Your task to perform on an android device: toggle priority inbox in the gmail app Image 0: 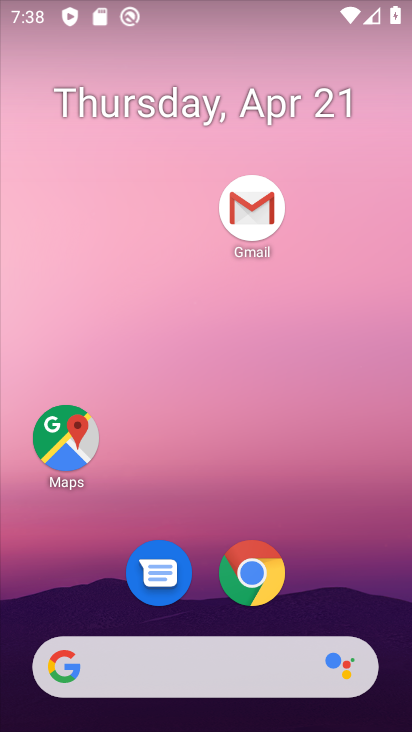
Step 0: click (252, 218)
Your task to perform on an android device: toggle priority inbox in the gmail app Image 1: 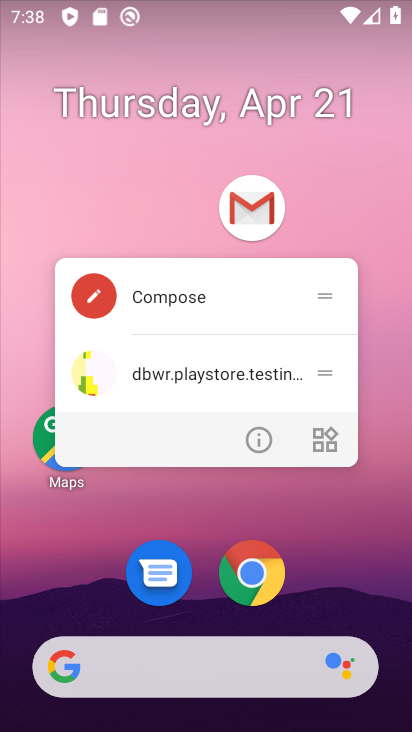
Step 1: click (252, 218)
Your task to perform on an android device: toggle priority inbox in the gmail app Image 2: 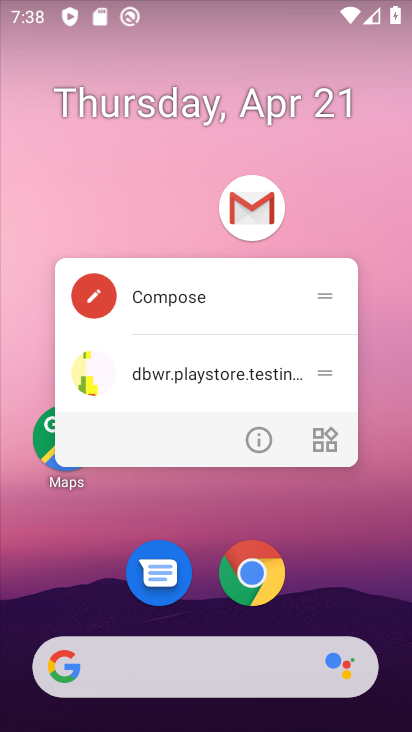
Step 2: click (252, 218)
Your task to perform on an android device: toggle priority inbox in the gmail app Image 3: 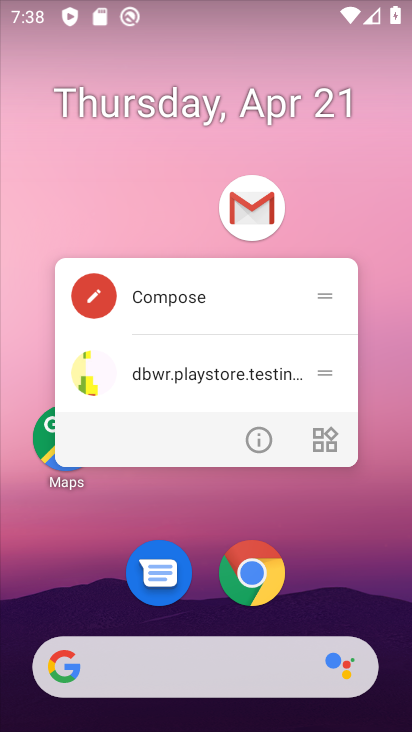
Step 3: click (252, 218)
Your task to perform on an android device: toggle priority inbox in the gmail app Image 4: 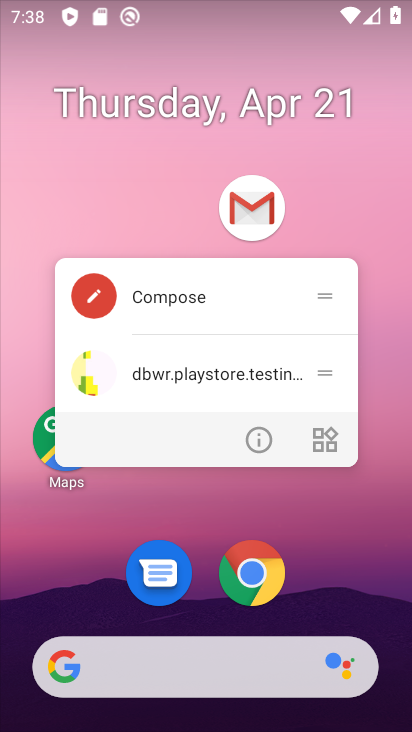
Step 4: click (252, 218)
Your task to perform on an android device: toggle priority inbox in the gmail app Image 5: 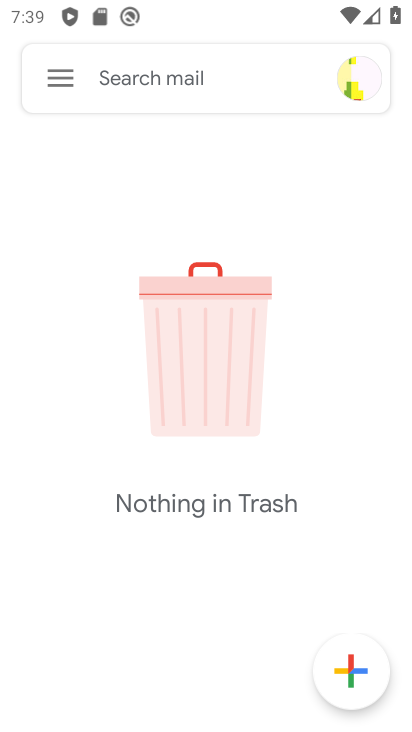
Step 5: click (55, 69)
Your task to perform on an android device: toggle priority inbox in the gmail app Image 6: 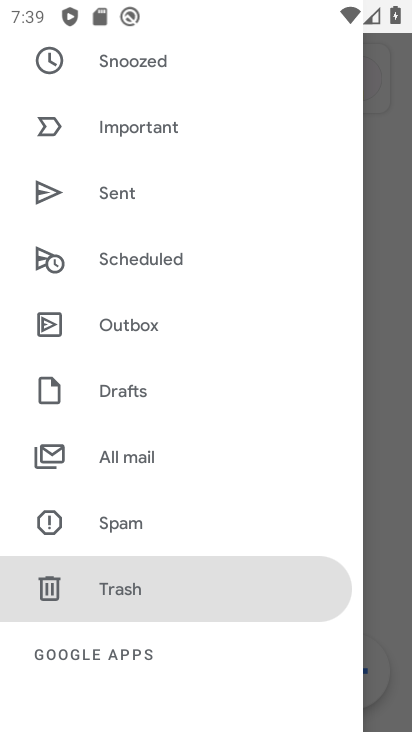
Step 6: drag from (237, 402) to (218, 98)
Your task to perform on an android device: toggle priority inbox in the gmail app Image 7: 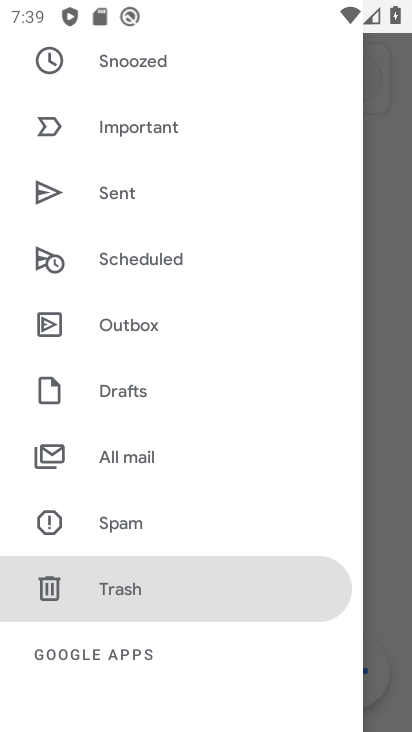
Step 7: drag from (189, 624) to (185, 222)
Your task to perform on an android device: toggle priority inbox in the gmail app Image 8: 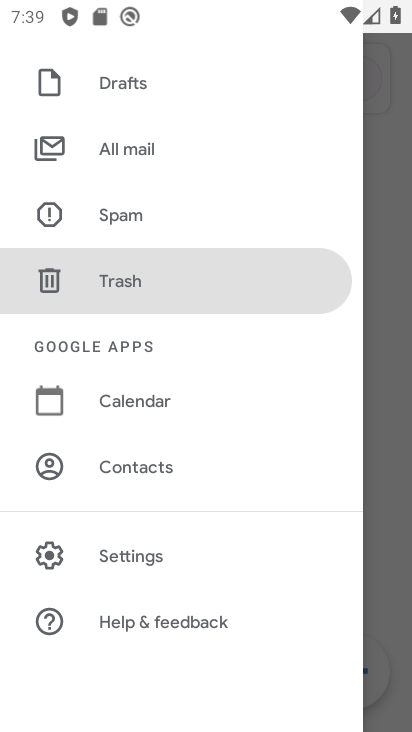
Step 8: click (111, 558)
Your task to perform on an android device: toggle priority inbox in the gmail app Image 9: 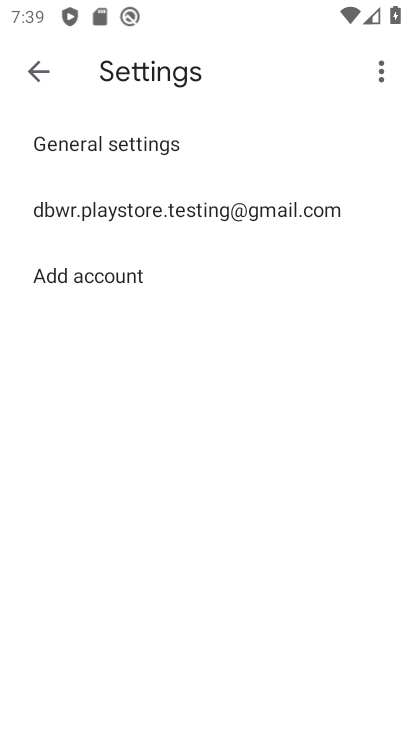
Step 9: click (226, 212)
Your task to perform on an android device: toggle priority inbox in the gmail app Image 10: 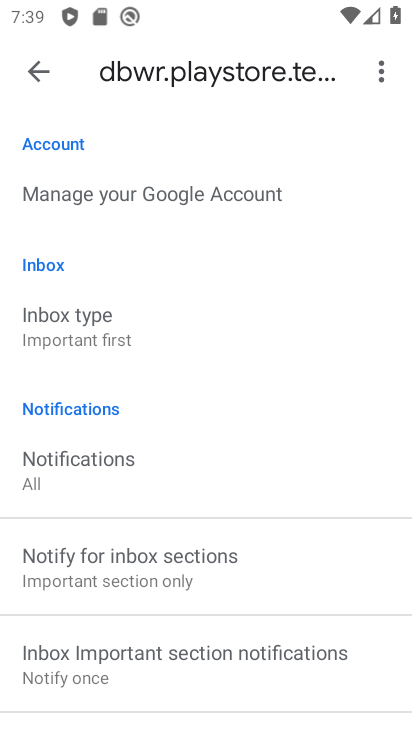
Step 10: click (99, 307)
Your task to perform on an android device: toggle priority inbox in the gmail app Image 11: 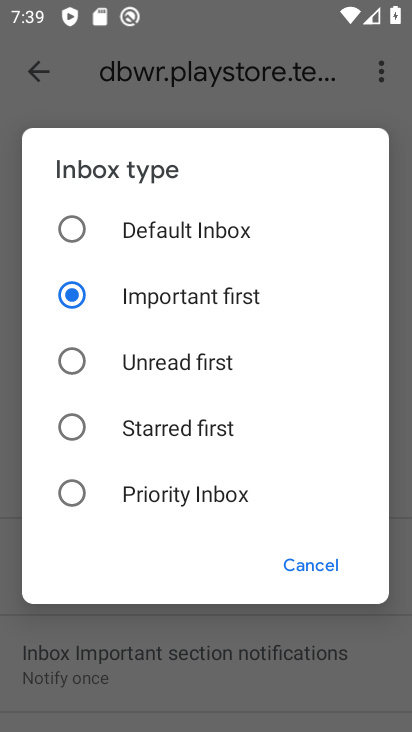
Step 11: click (128, 506)
Your task to perform on an android device: toggle priority inbox in the gmail app Image 12: 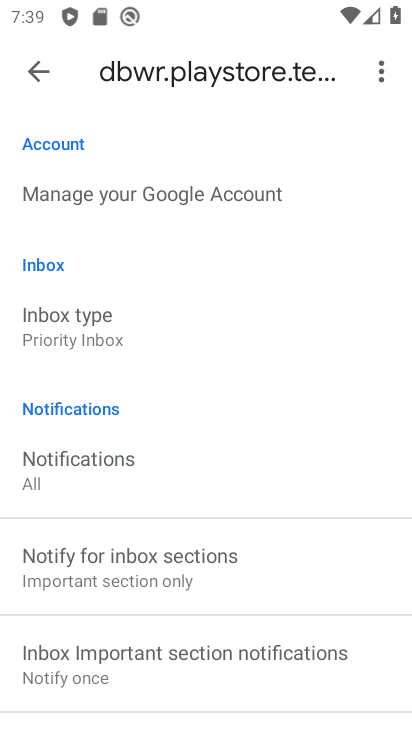
Step 12: task complete